Your task to perform on an android device: Is it going to rain tomorrow? Image 0: 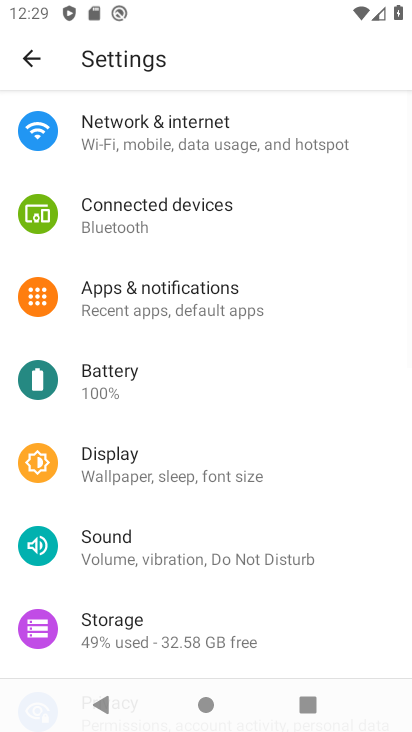
Step 0: press home button
Your task to perform on an android device: Is it going to rain tomorrow? Image 1: 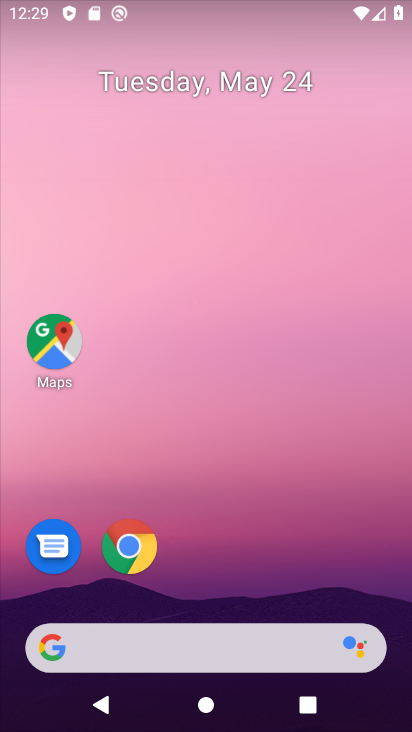
Step 1: drag from (287, 657) to (344, 0)
Your task to perform on an android device: Is it going to rain tomorrow? Image 2: 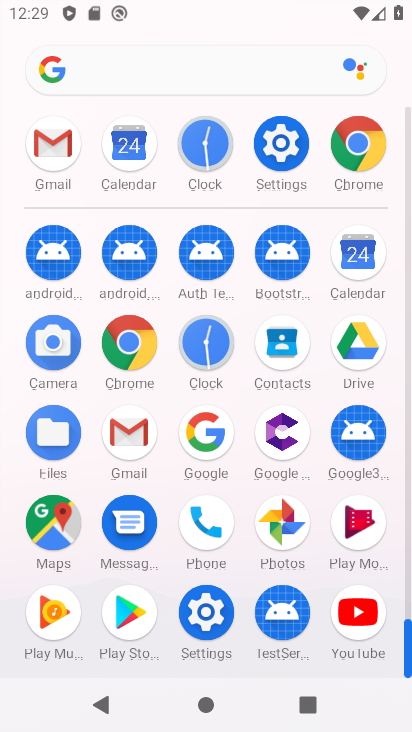
Step 2: press home button
Your task to perform on an android device: Is it going to rain tomorrow? Image 3: 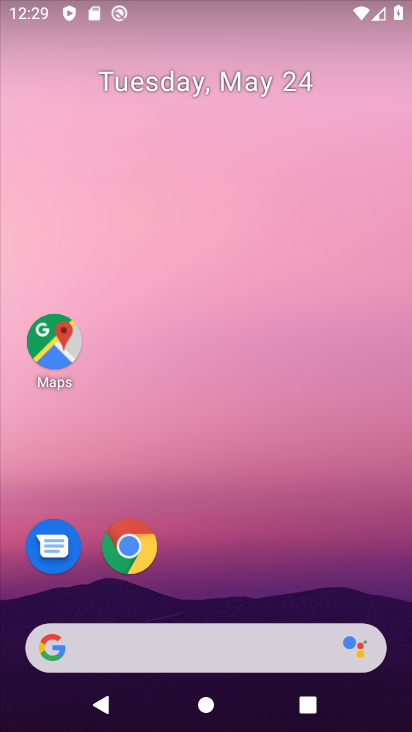
Step 3: drag from (71, 202) to (411, 172)
Your task to perform on an android device: Is it going to rain tomorrow? Image 4: 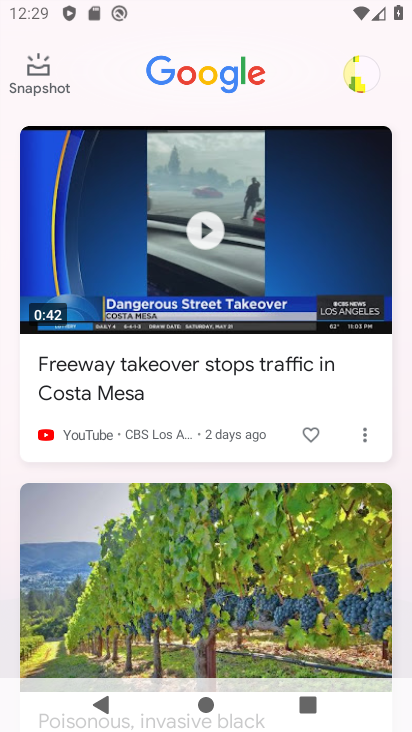
Step 4: drag from (357, 175) to (0, 236)
Your task to perform on an android device: Is it going to rain tomorrow? Image 5: 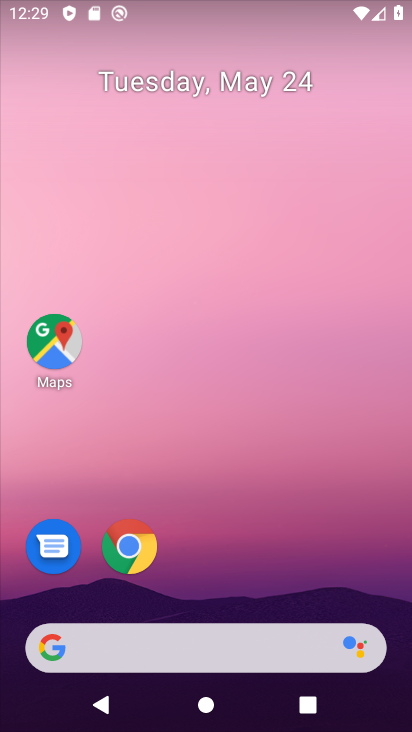
Step 5: drag from (286, 603) to (233, 26)
Your task to perform on an android device: Is it going to rain tomorrow? Image 6: 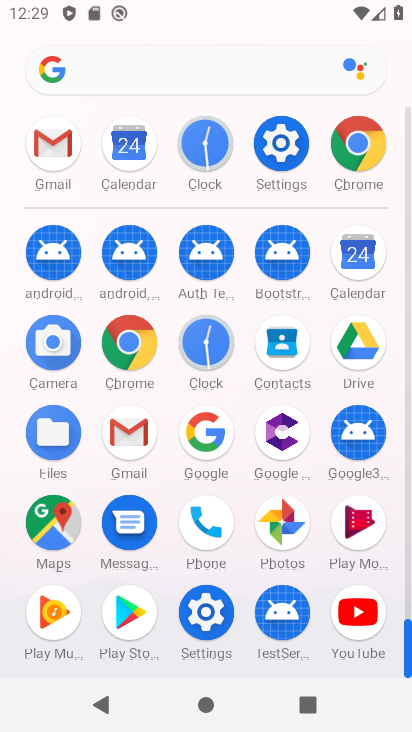
Step 6: click (140, 345)
Your task to perform on an android device: Is it going to rain tomorrow? Image 7: 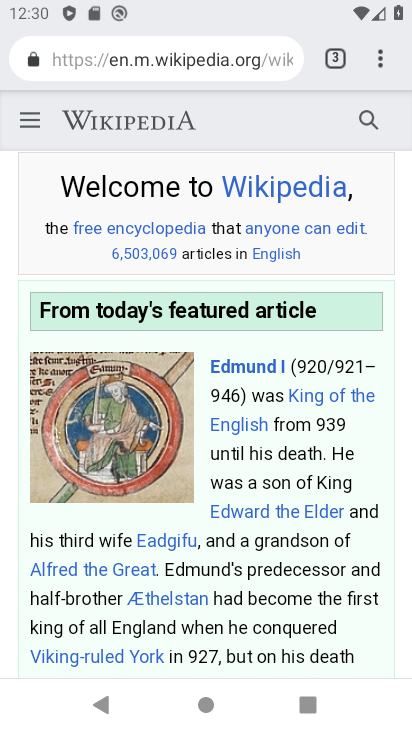
Step 7: click (258, 43)
Your task to perform on an android device: Is it going to rain tomorrow? Image 8: 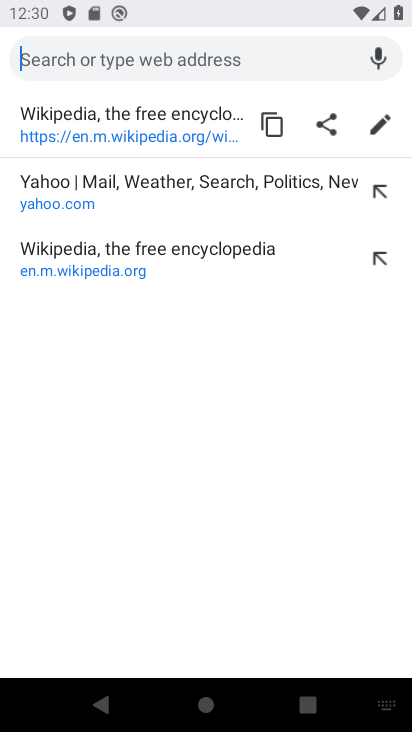
Step 8: type "going to rain tomorrow"
Your task to perform on an android device: Is it going to rain tomorrow? Image 9: 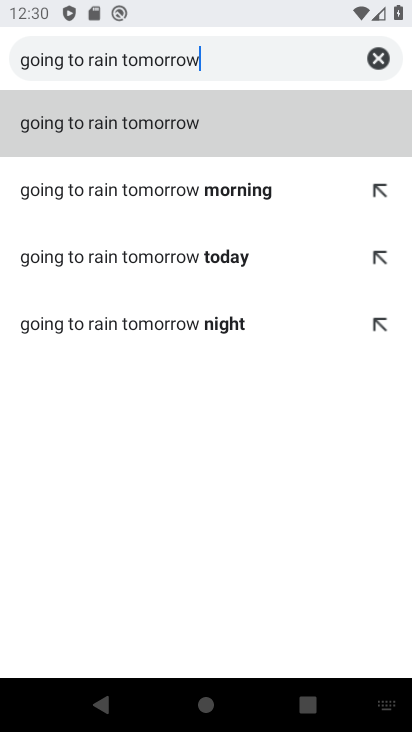
Step 9: click (214, 114)
Your task to perform on an android device: Is it going to rain tomorrow? Image 10: 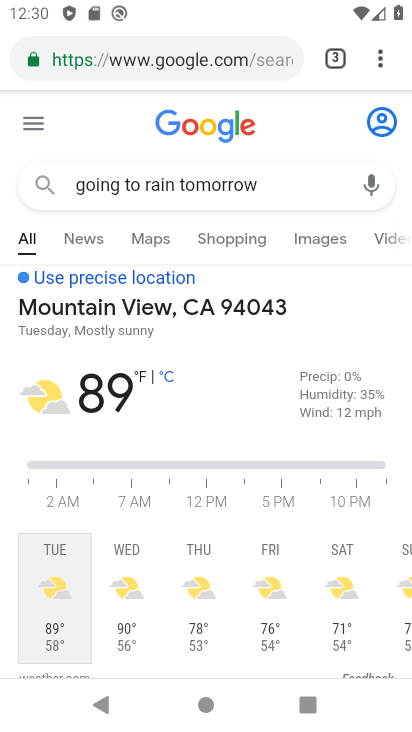
Step 10: task complete